Your task to perform on an android device: Search for seafood restaurants on Google Maps Image 0: 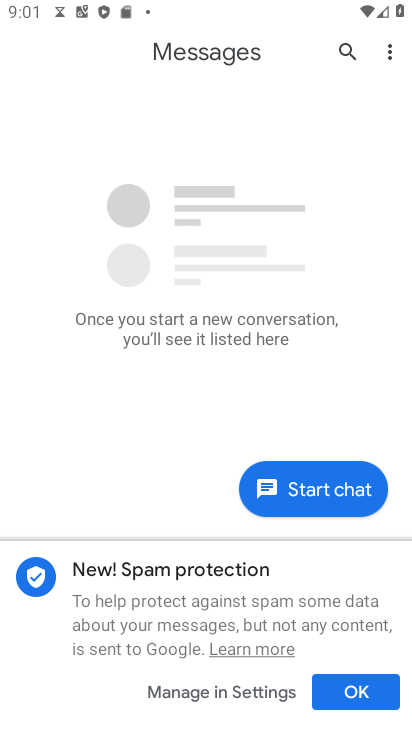
Step 0: press home button
Your task to perform on an android device: Search for seafood restaurants on Google Maps Image 1: 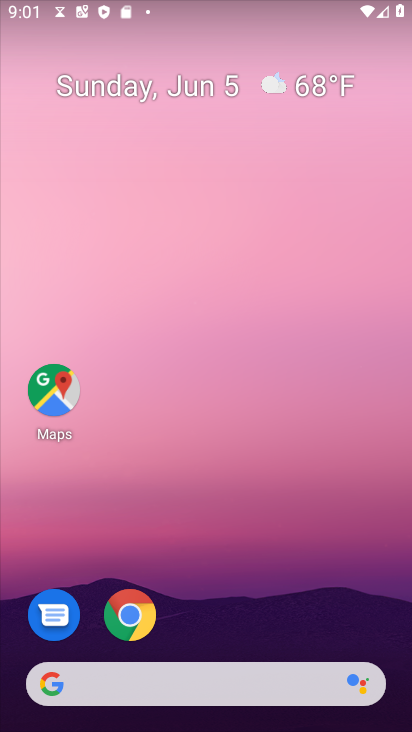
Step 1: click (63, 387)
Your task to perform on an android device: Search for seafood restaurants on Google Maps Image 2: 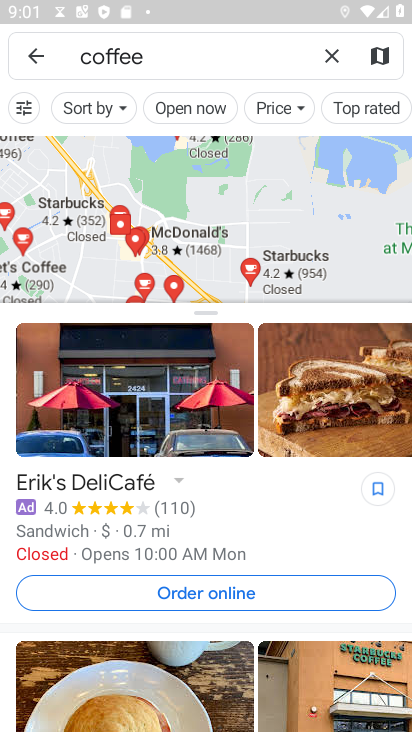
Step 2: click (331, 63)
Your task to perform on an android device: Search for seafood restaurants on Google Maps Image 3: 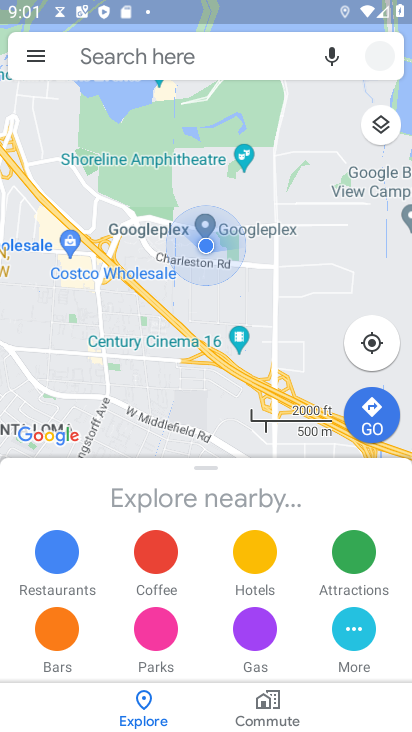
Step 3: click (198, 59)
Your task to perform on an android device: Search for seafood restaurants on Google Maps Image 4: 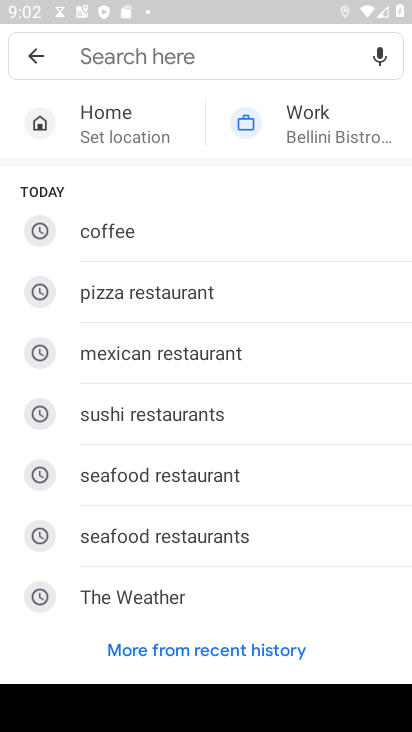
Step 4: click (168, 472)
Your task to perform on an android device: Search for seafood restaurants on Google Maps Image 5: 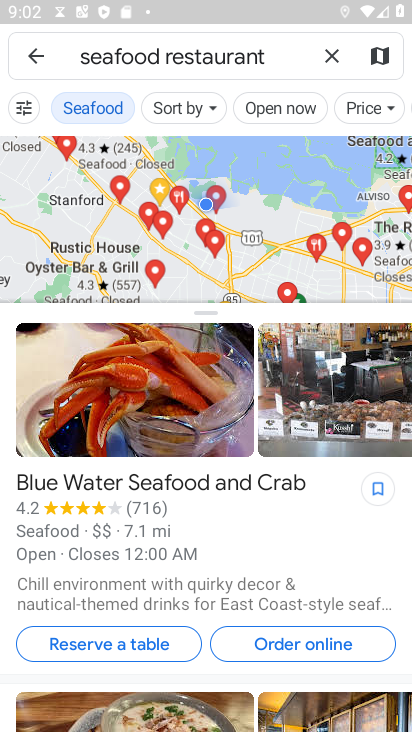
Step 5: task complete